Your task to perform on an android device: Open notification settings Image 0: 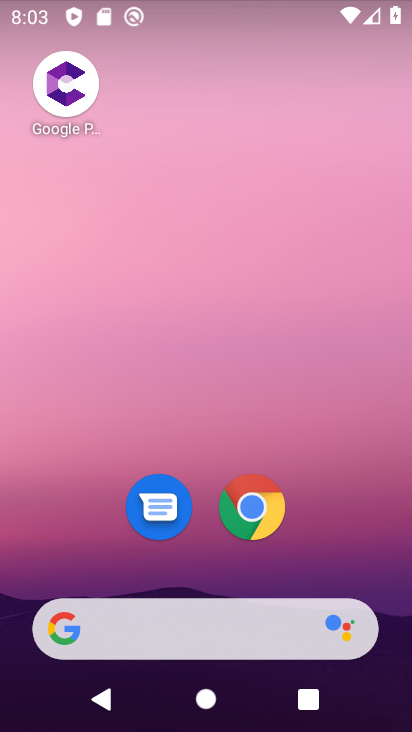
Step 0: press home button
Your task to perform on an android device: Open notification settings Image 1: 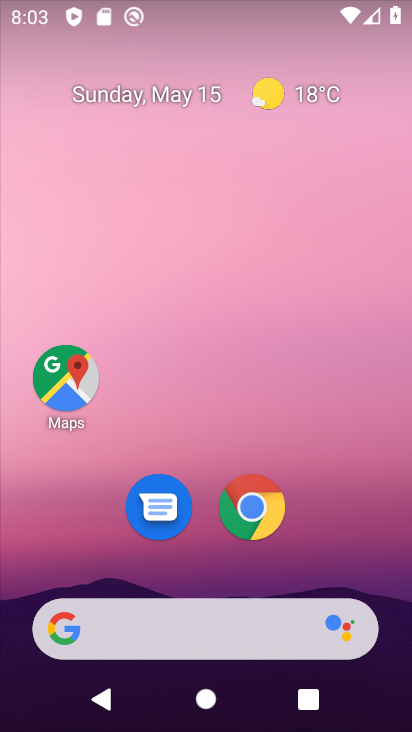
Step 1: drag from (89, 587) to (317, 169)
Your task to perform on an android device: Open notification settings Image 2: 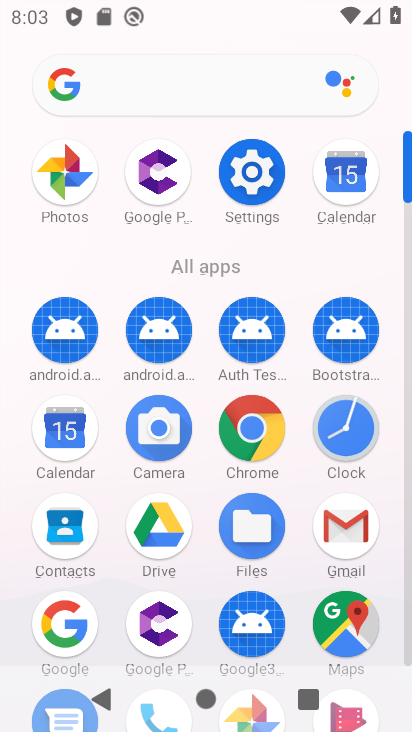
Step 2: click (259, 187)
Your task to perform on an android device: Open notification settings Image 3: 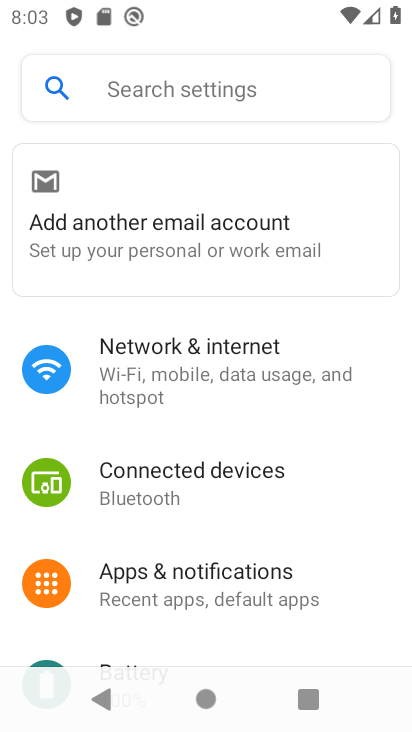
Step 3: click (151, 576)
Your task to perform on an android device: Open notification settings Image 4: 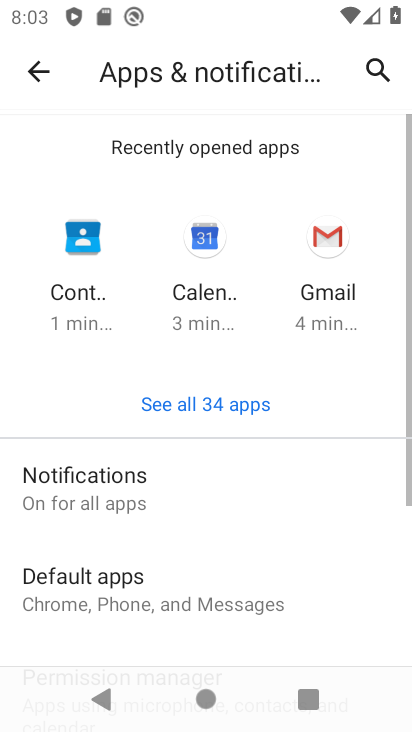
Step 4: click (99, 485)
Your task to perform on an android device: Open notification settings Image 5: 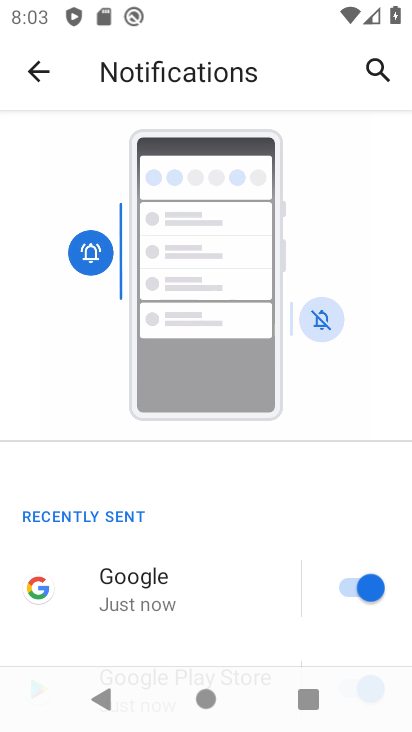
Step 5: task complete